Your task to perform on an android device: Go to privacy settings Image 0: 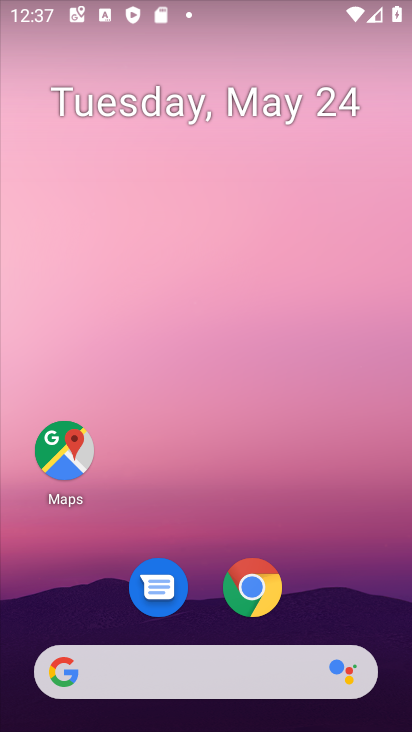
Step 0: drag from (219, 718) to (207, 4)
Your task to perform on an android device: Go to privacy settings Image 1: 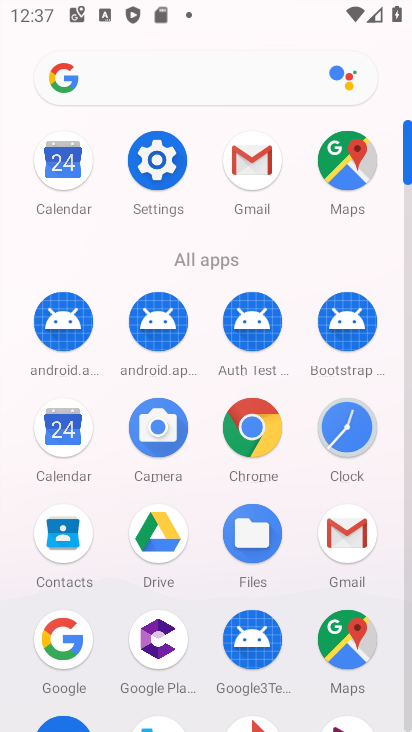
Step 1: click (163, 169)
Your task to perform on an android device: Go to privacy settings Image 2: 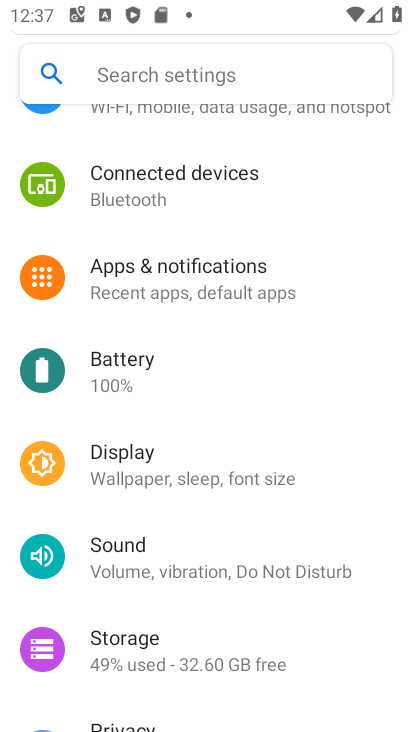
Step 2: drag from (204, 667) to (194, 189)
Your task to perform on an android device: Go to privacy settings Image 3: 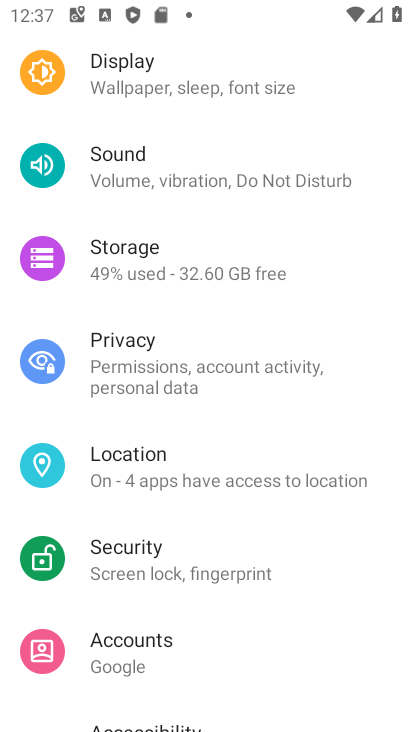
Step 3: click (193, 367)
Your task to perform on an android device: Go to privacy settings Image 4: 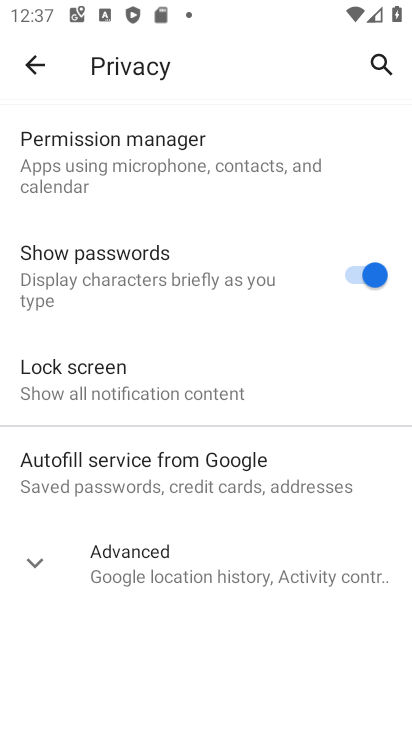
Step 4: task complete